Your task to perform on an android device: Open calendar and show me the second week of next month Image 0: 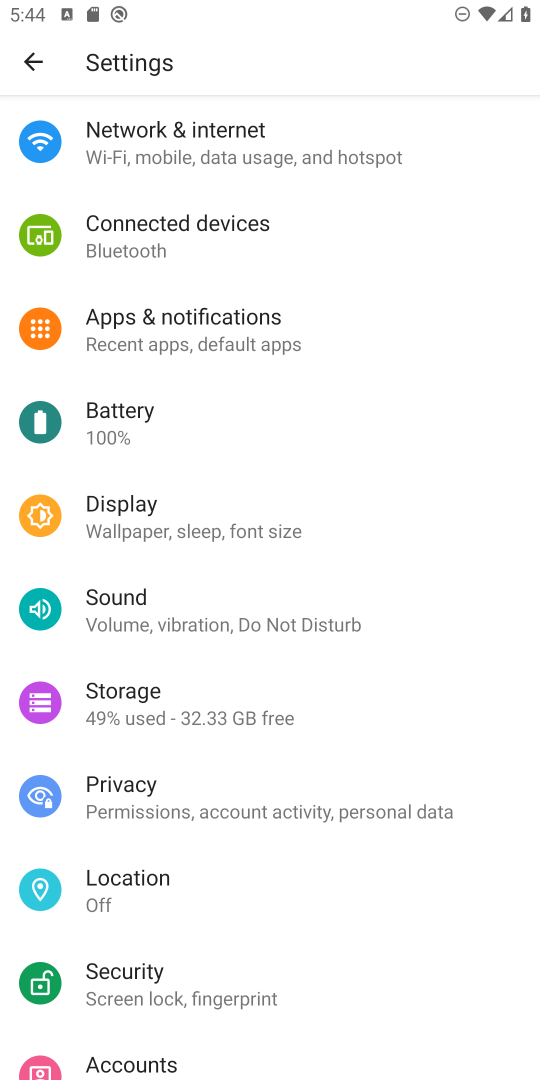
Step 0: press home button
Your task to perform on an android device: Open calendar and show me the second week of next month Image 1: 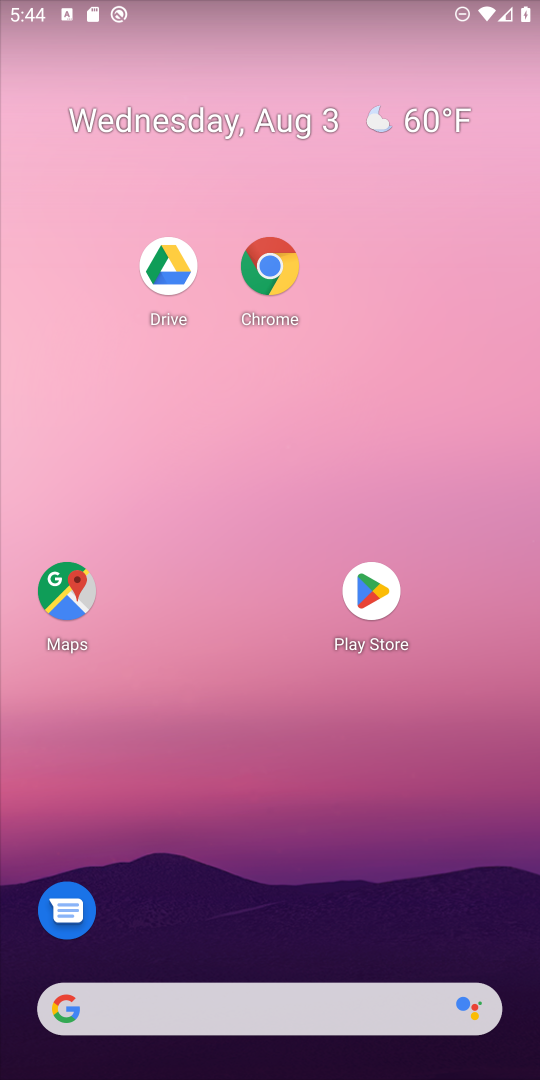
Step 1: drag from (268, 1033) to (416, 0)
Your task to perform on an android device: Open calendar and show me the second week of next month Image 2: 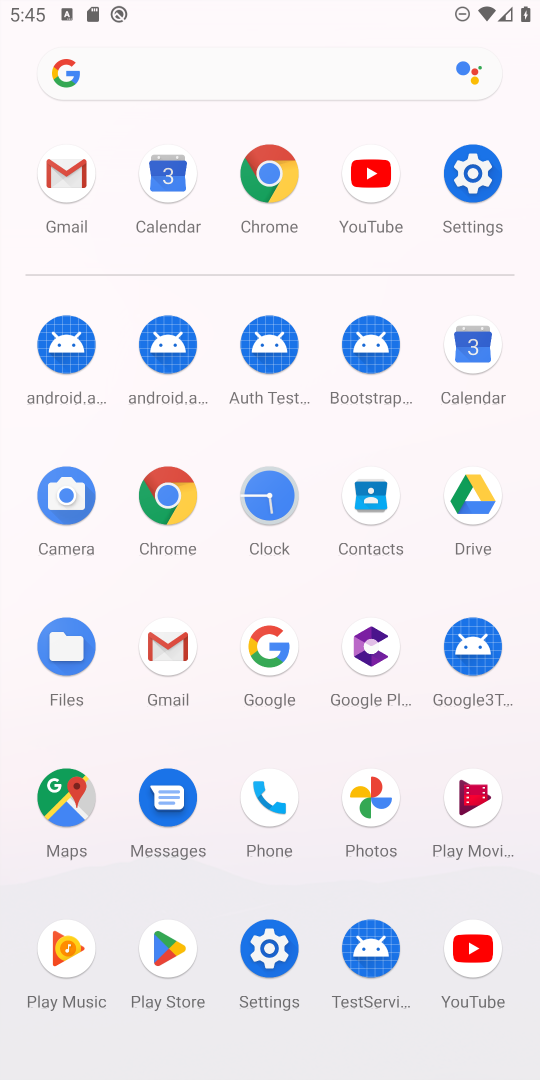
Step 2: click (482, 350)
Your task to perform on an android device: Open calendar and show me the second week of next month Image 3: 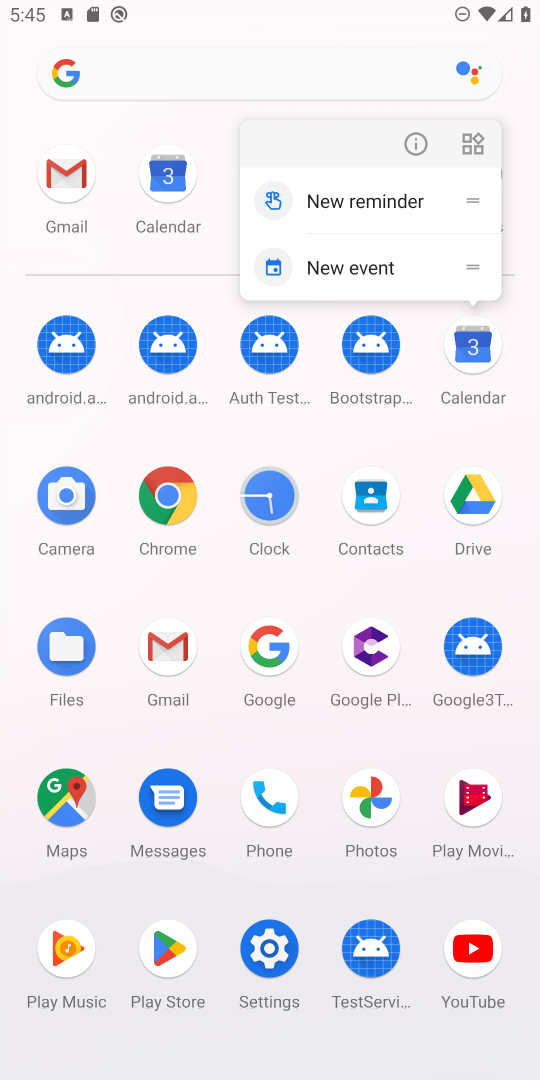
Step 3: click (470, 349)
Your task to perform on an android device: Open calendar and show me the second week of next month Image 4: 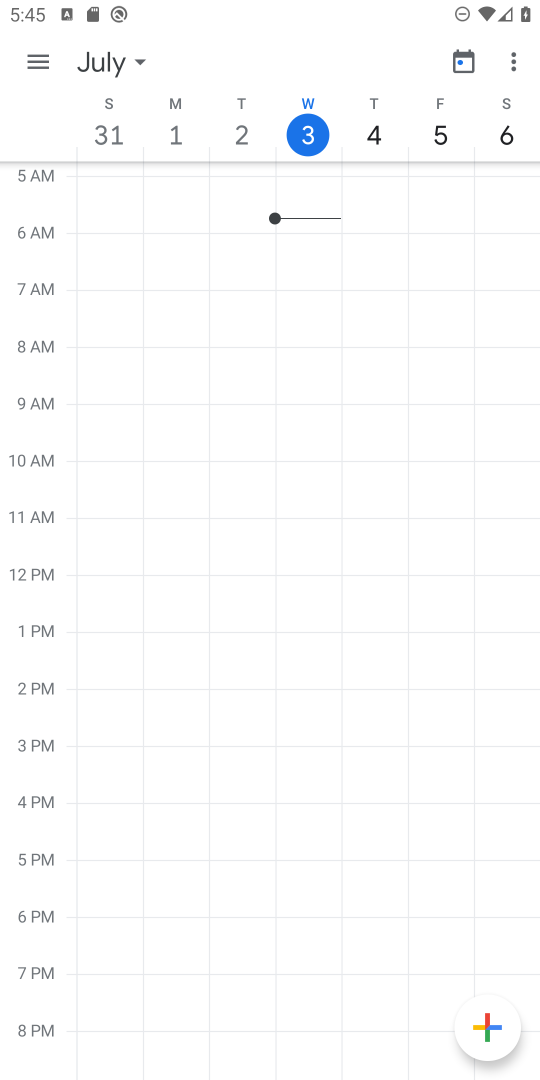
Step 4: click (123, 58)
Your task to perform on an android device: Open calendar and show me the second week of next month Image 5: 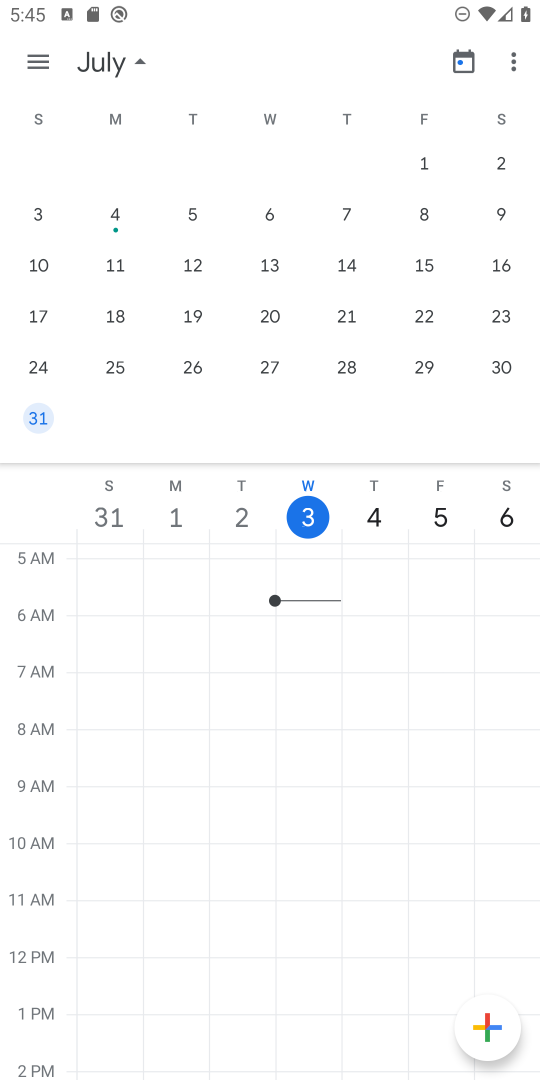
Step 5: drag from (465, 302) to (1, 352)
Your task to perform on an android device: Open calendar and show me the second week of next month Image 6: 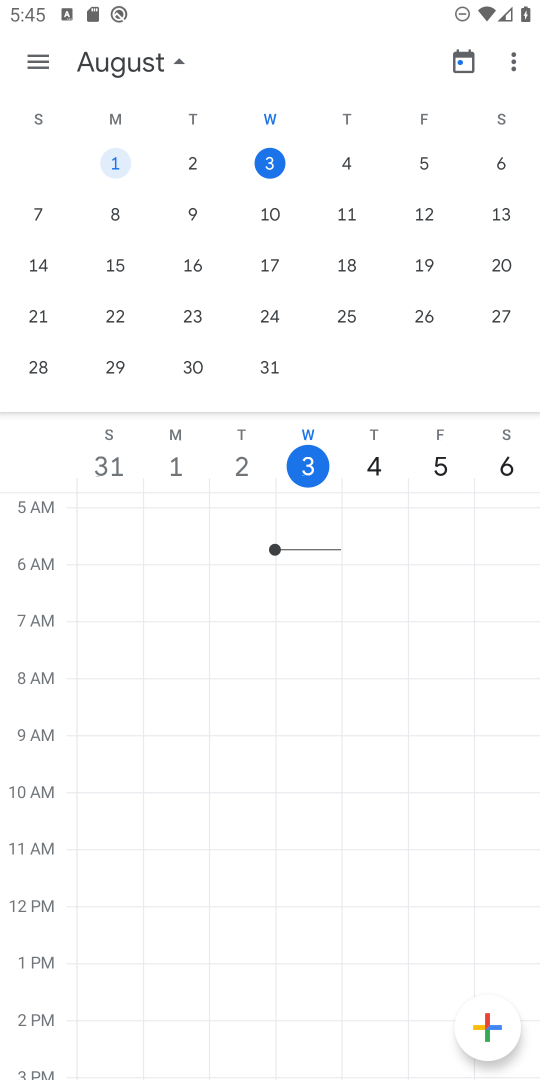
Step 6: drag from (462, 288) to (19, 299)
Your task to perform on an android device: Open calendar and show me the second week of next month Image 7: 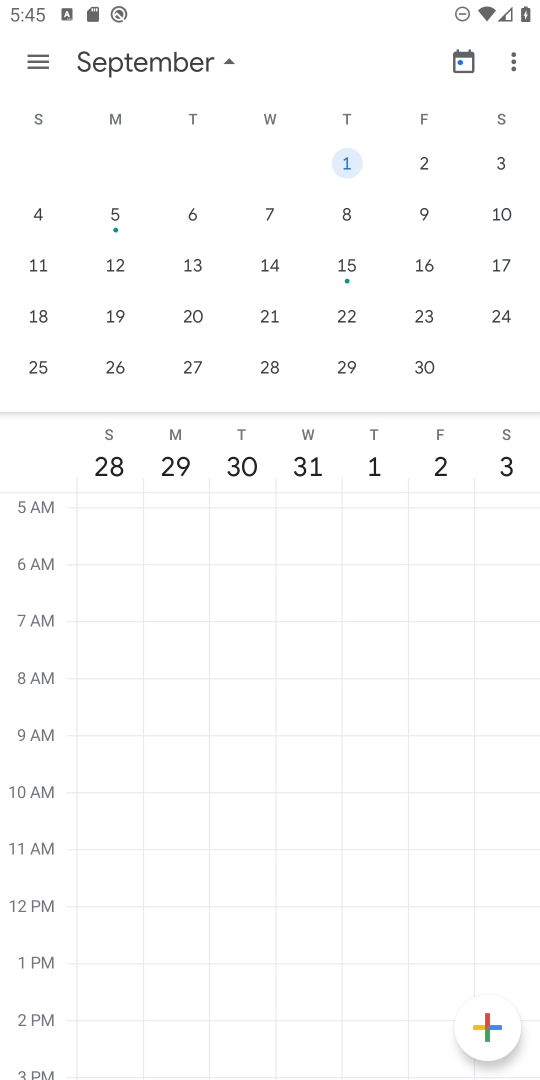
Step 7: click (277, 217)
Your task to perform on an android device: Open calendar and show me the second week of next month Image 8: 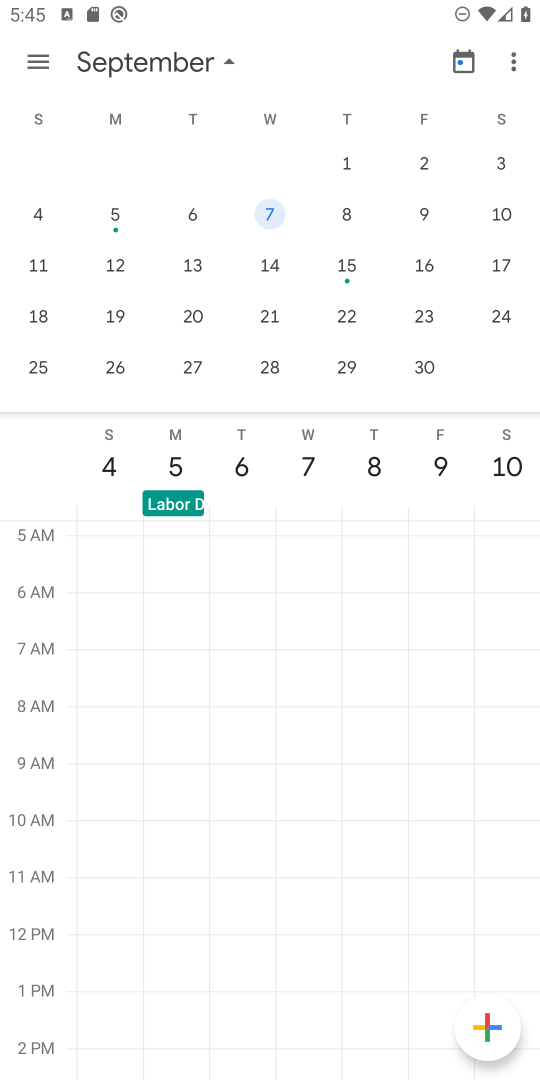
Step 8: task complete